Your task to perform on an android device: What is the recent news? Image 0: 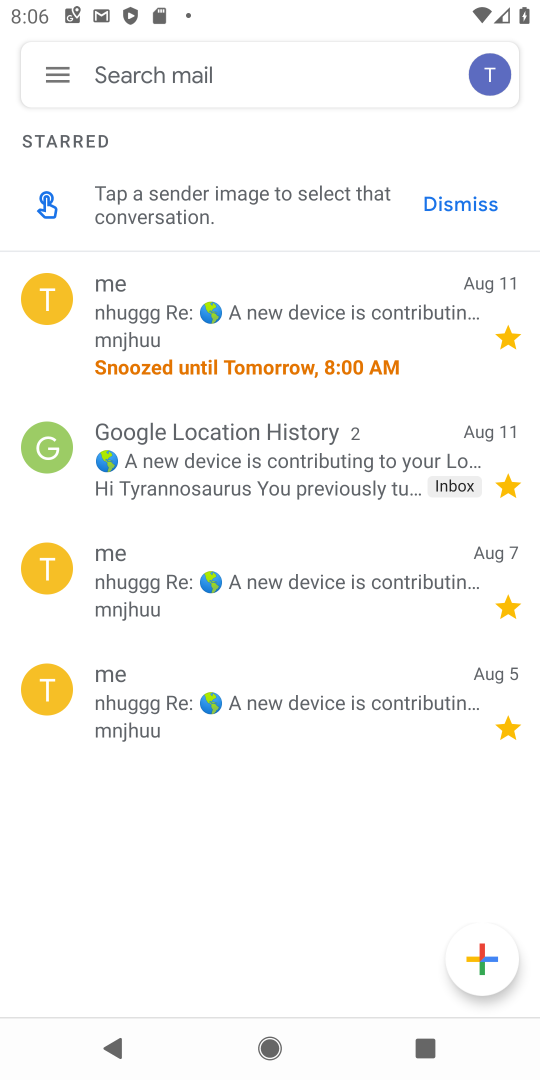
Step 0: press home button
Your task to perform on an android device: What is the recent news? Image 1: 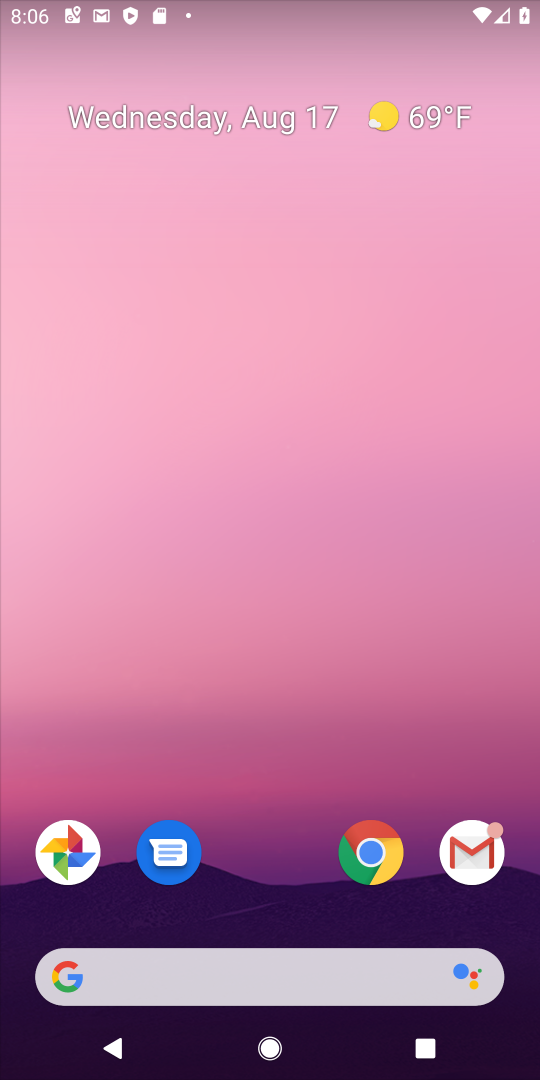
Step 1: click (64, 975)
Your task to perform on an android device: What is the recent news? Image 2: 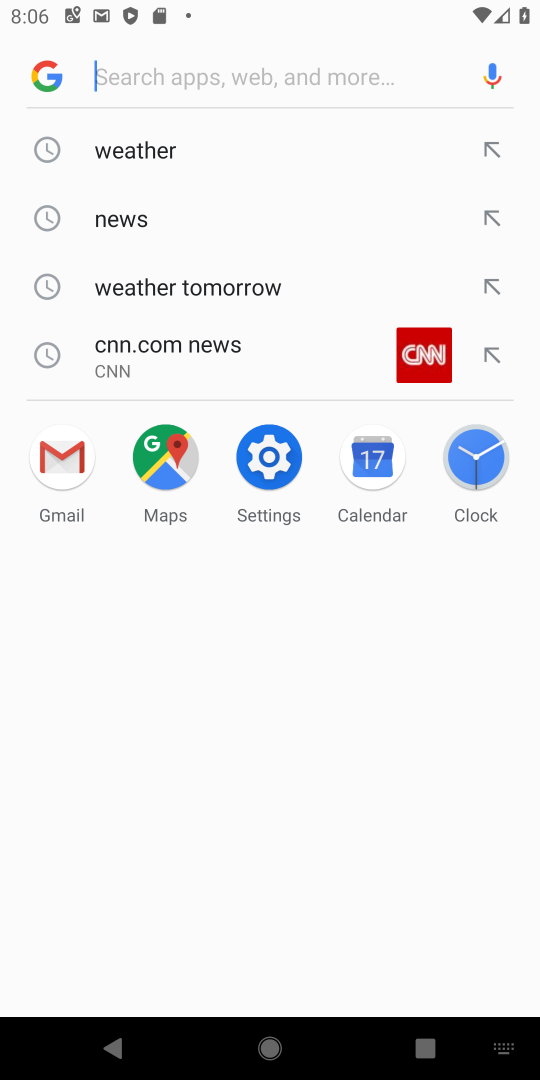
Step 2: click (52, 71)
Your task to perform on an android device: What is the recent news? Image 3: 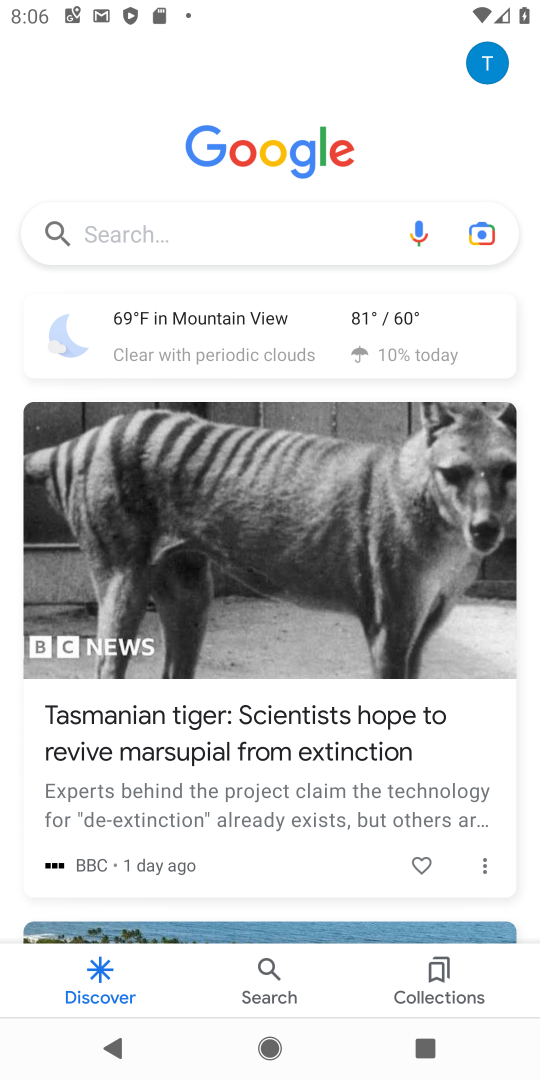
Step 3: task complete